Your task to perform on an android device: Show me the alarms in the clock app Image 0: 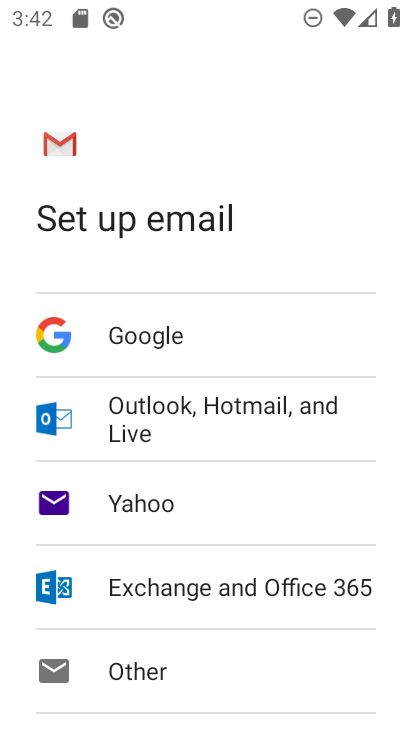
Step 0: press home button
Your task to perform on an android device: Show me the alarms in the clock app Image 1: 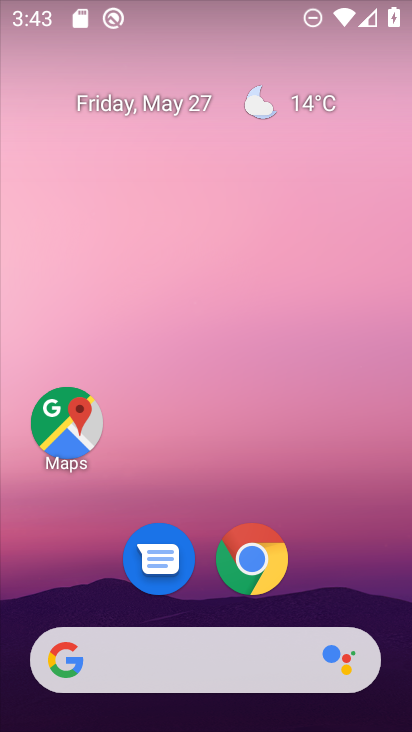
Step 1: drag from (358, 592) to (341, 47)
Your task to perform on an android device: Show me the alarms in the clock app Image 2: 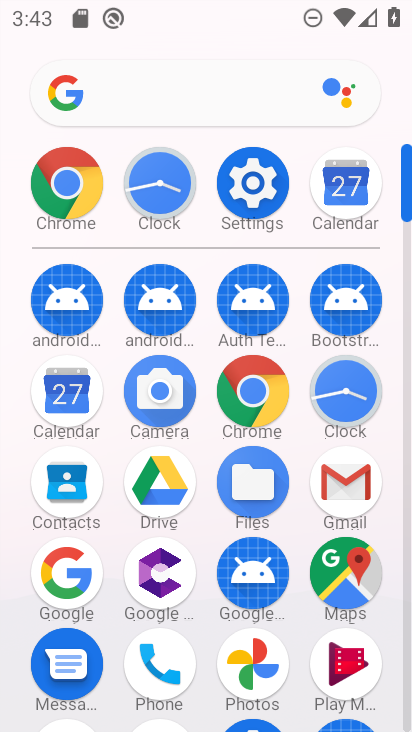
Step 2: click (350, 420)
Your task to perform on an android device: Show me the alarms in the clock app Image 3: 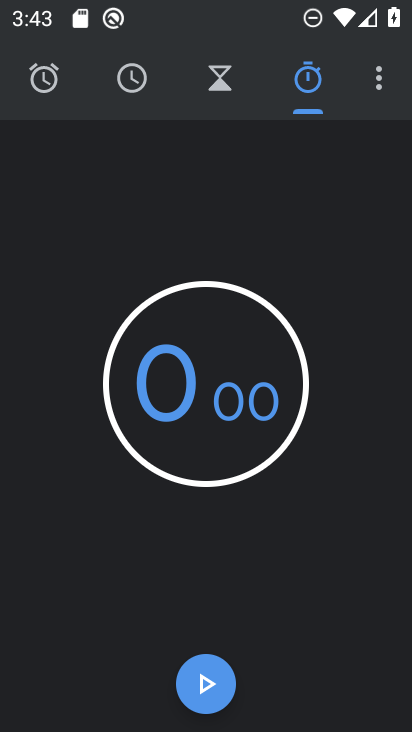
Step 3: click (47, 74)
Your task to perform on an android device: Show me the alarms in the clock app Image 4: 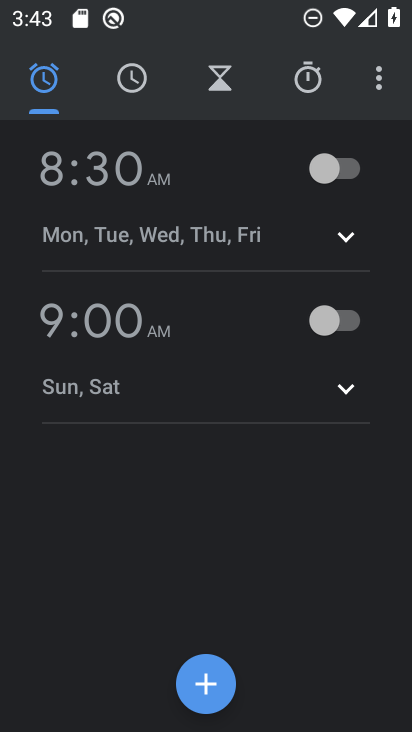
Step 4: task complete